Your task to perform on an android device: Clear the cart on walmart. Add "logitech g pro" to the cart on walmart Image 0: 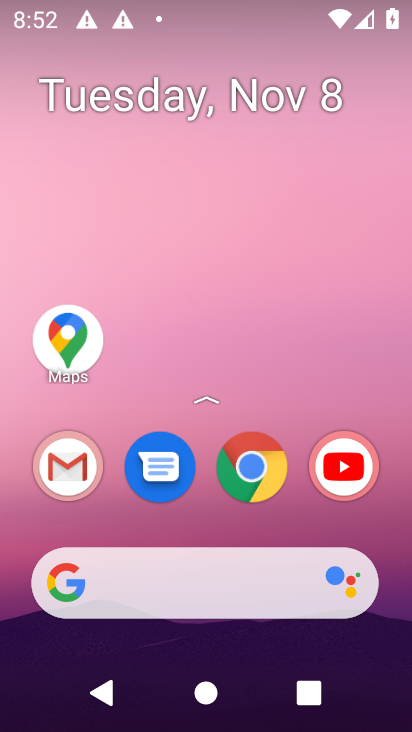
Step 0: click (229, 562)
Your task to perform on an android device: Clear the cart on walmart. Add "logitech g pro" to the cart on walmart Image 1: 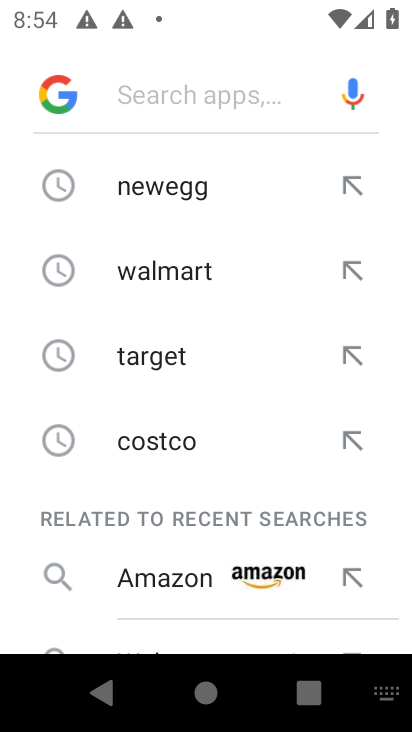
Step 1: click (213, 269)
Your task to perform on an android device: Clear the cart on walmart. Add "logitech g pro" to the cart on walmart Image 2: 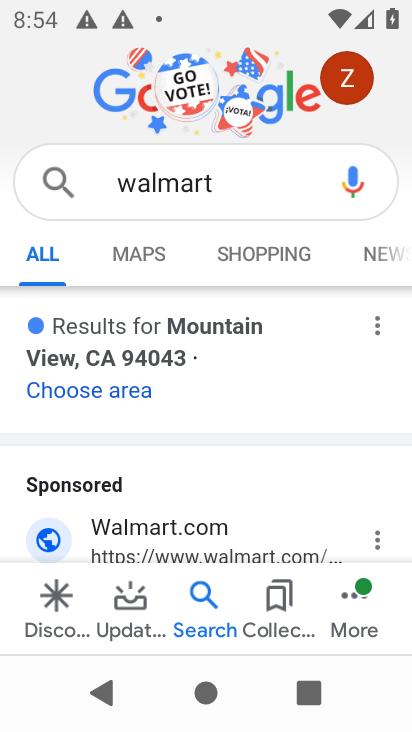
Step 2: click (90, 519)
Your task to perform on an android device: Clear the cart on walmart. Add "logitech g pro" to the cart on walmart Image 3: 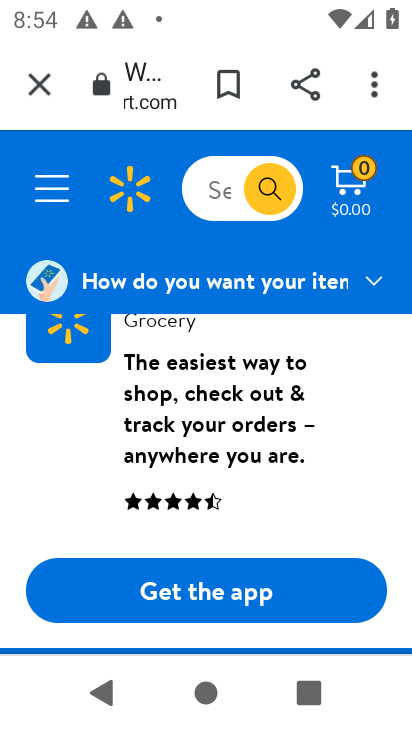
Step 3: click (222, 210)
Your task to perform on an android device: Clear the cart on walmart. Add "logitech g pro" to the cart on walmart Image 4: 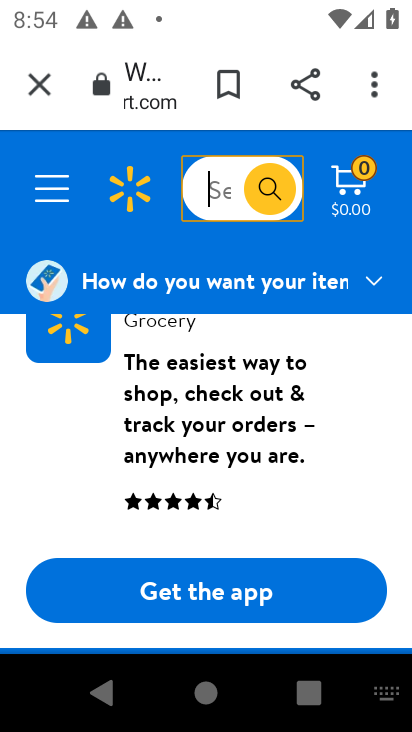
Step 4: type "logitech g pro"
Your task to perform on an android device: Clear the cart on walmart. Add "logitech g pro" to the cart on walmart Image 5: 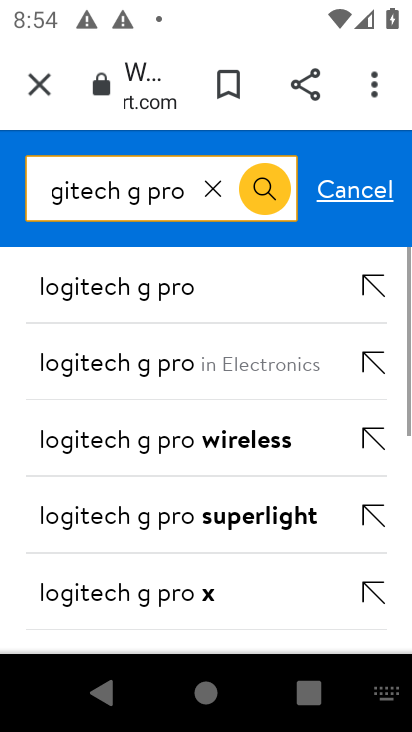
Step 5: click (190, 273)
Your task to perform on an android device: Clear the cart on walmart. Add "logitech g pro" to the cart on walmart Image 6: 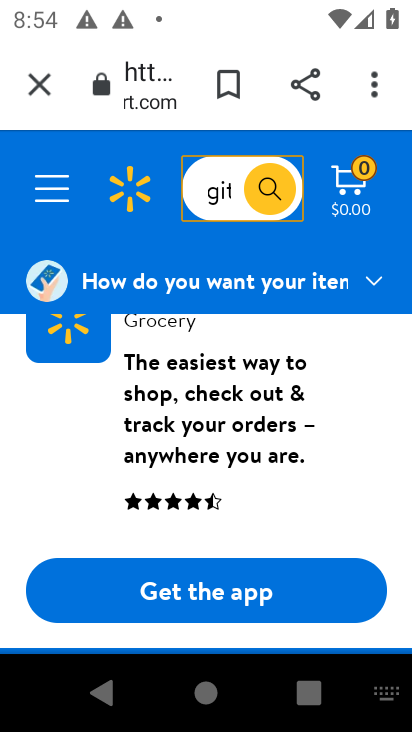
Step 6: task complete